Your task to perform on an android device: Go to location settings Image 0: 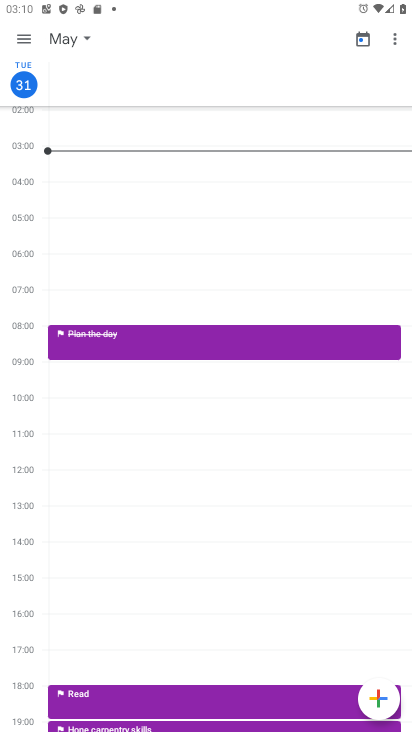
Step 0: press home button
Your task to perform on an android device: Go to location settings Image 1: 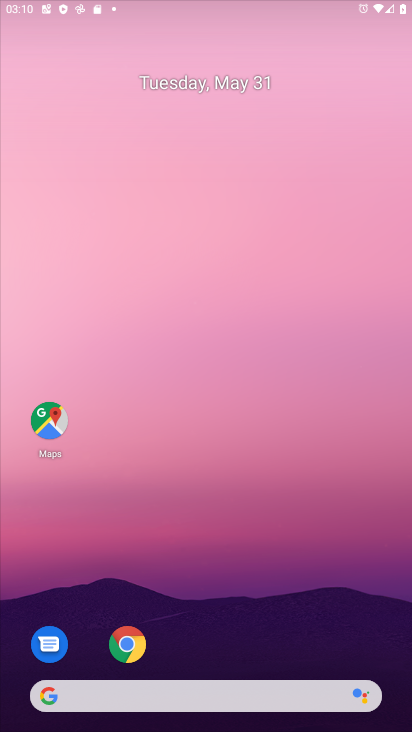
Step 1: drag from (348, 550) to (282, 56)
Your task to perform on an android device: Go to location settings Image 2: 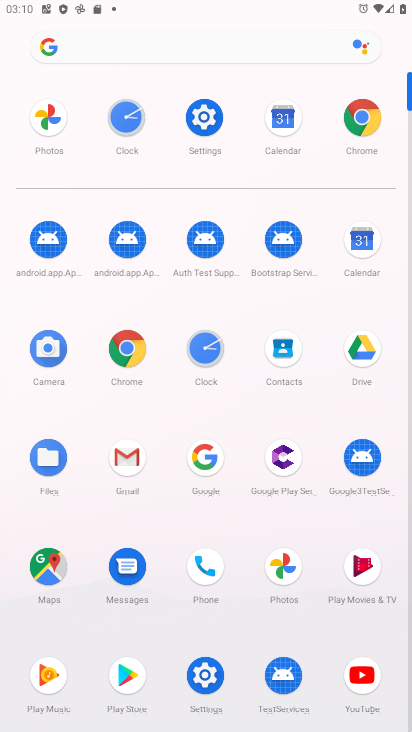
Step 2: click (218, 109)
Your task to perform on an android device: Go to location settings Image 3: 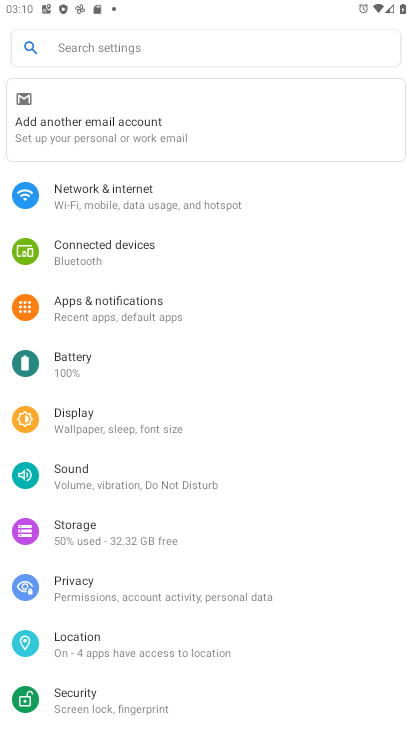
Step 3: click (118, 640)
Your task to perform on an android device: Go to location settings Image 4: 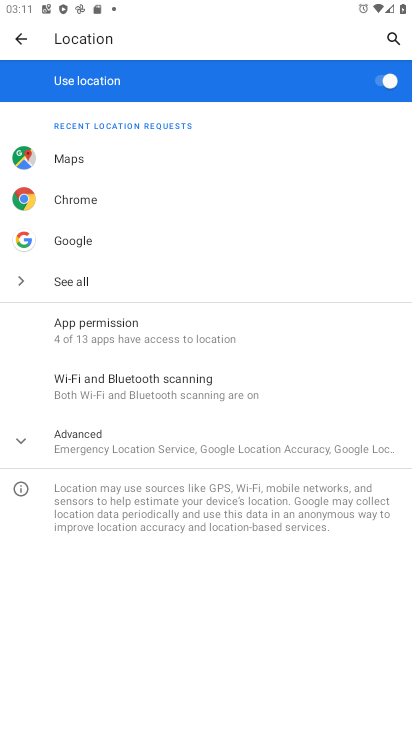
Step 4: click (149, 447)
Your task to perform on an android device: Go to location settings Image 5: 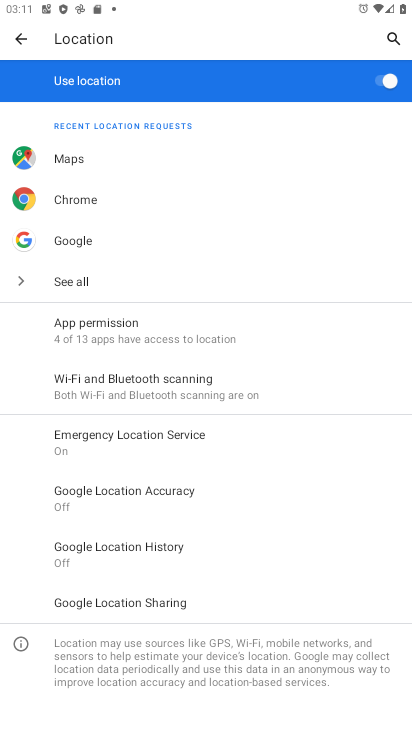
Step 5: task complete